Your task to perform on an android device: Is it going to rain this weekend? Image 0: 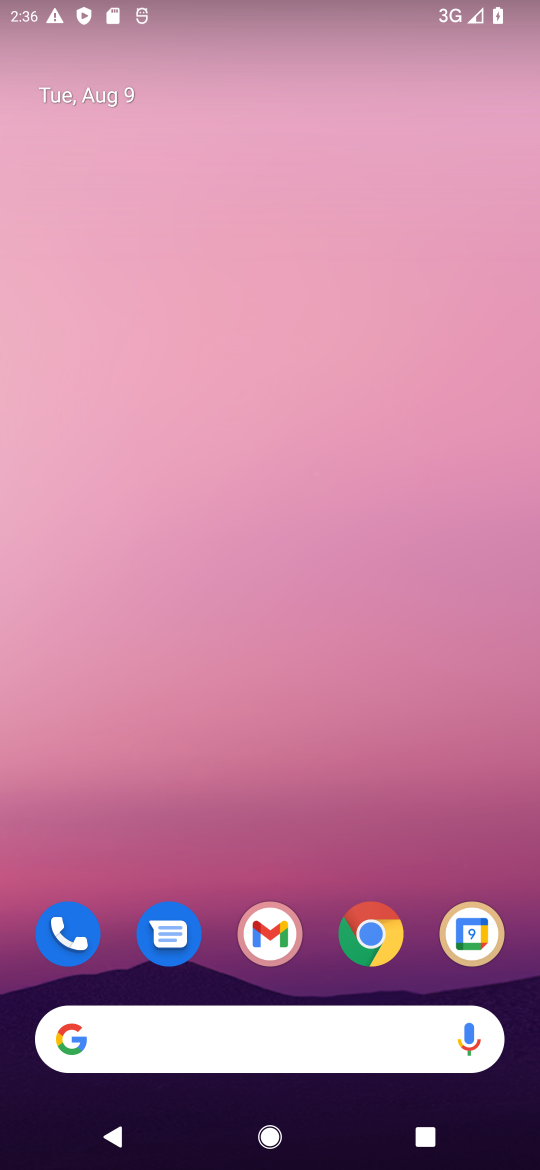
Step 0: drag from (306, 985) to (303, 274)
Your task to perform on an android device: Is it going to rain this weekend? Image 1: 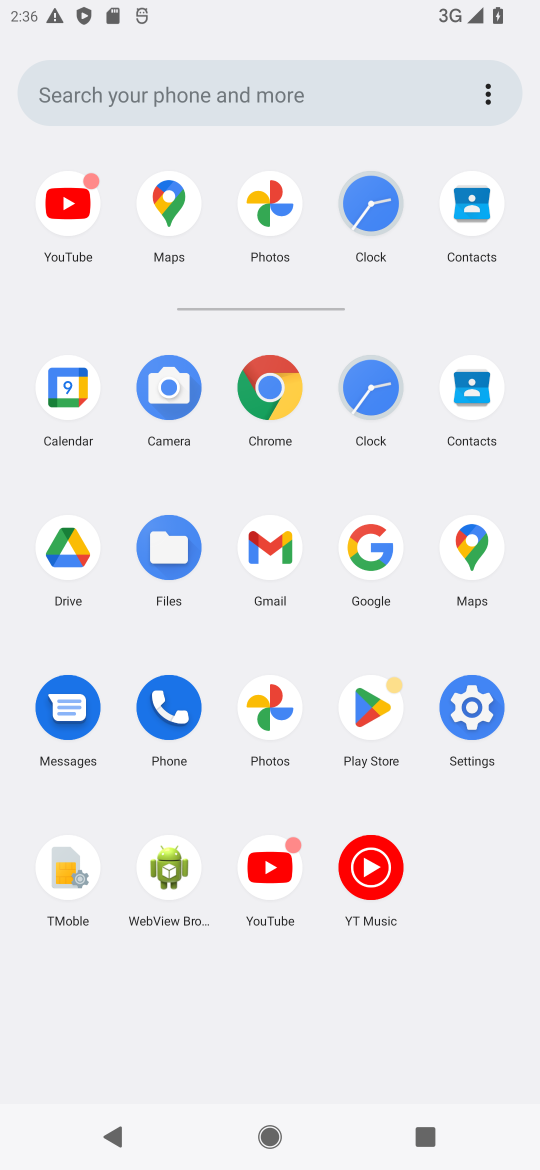
Step 1: click (204, 93)
Your task to perform on an android device: Is it going to rain this weekend? Image 2: 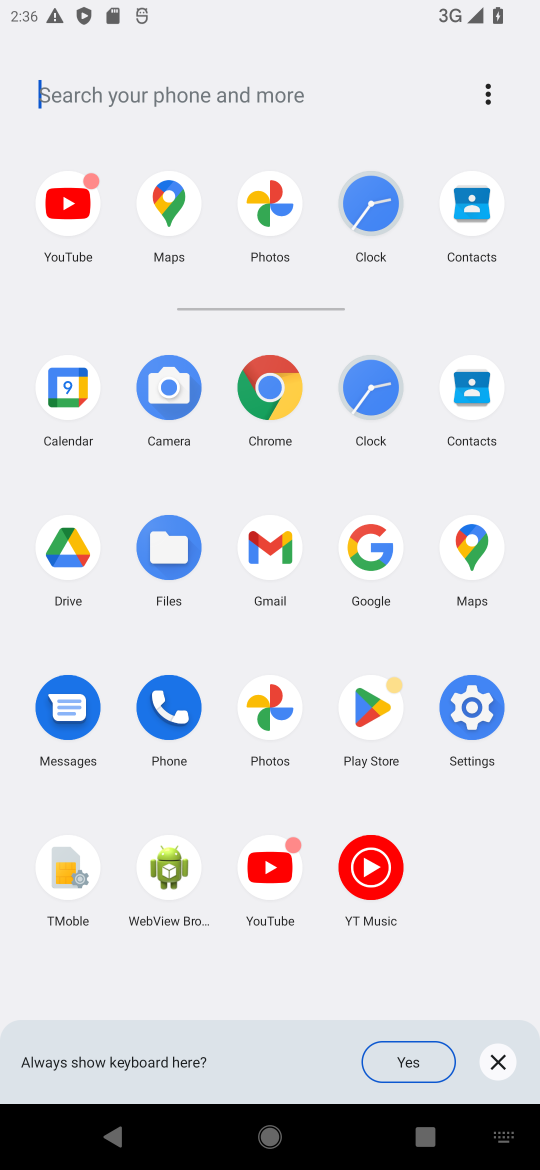
Step 2: type "weather"
Your task to perform on an android device: Is it going to rain this weekend? Image 3: 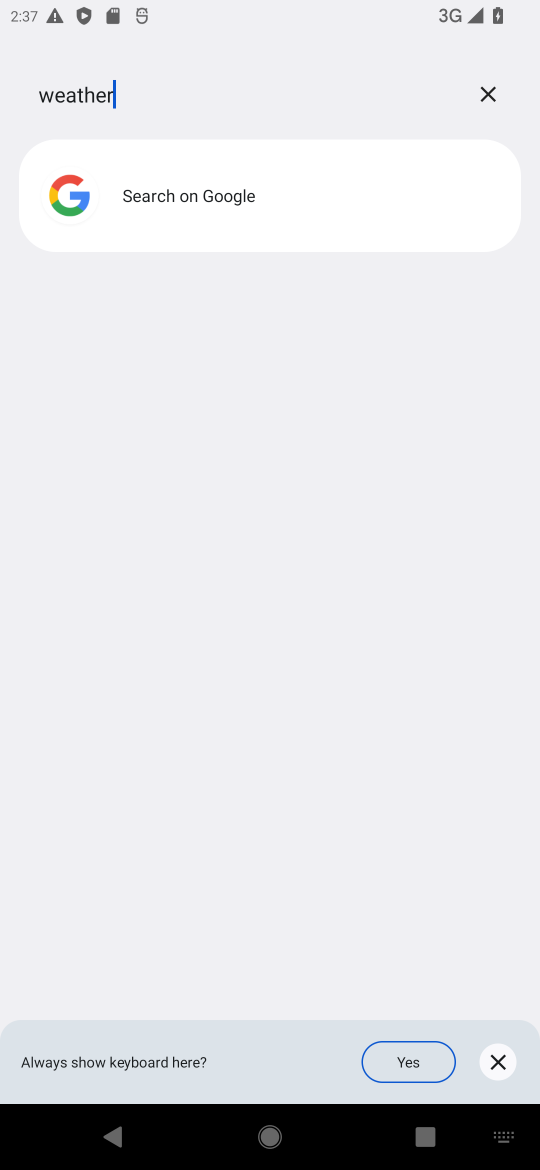
Step 3: task complete